Your task to perform on an android device: change the upload size in google photos Image 0: 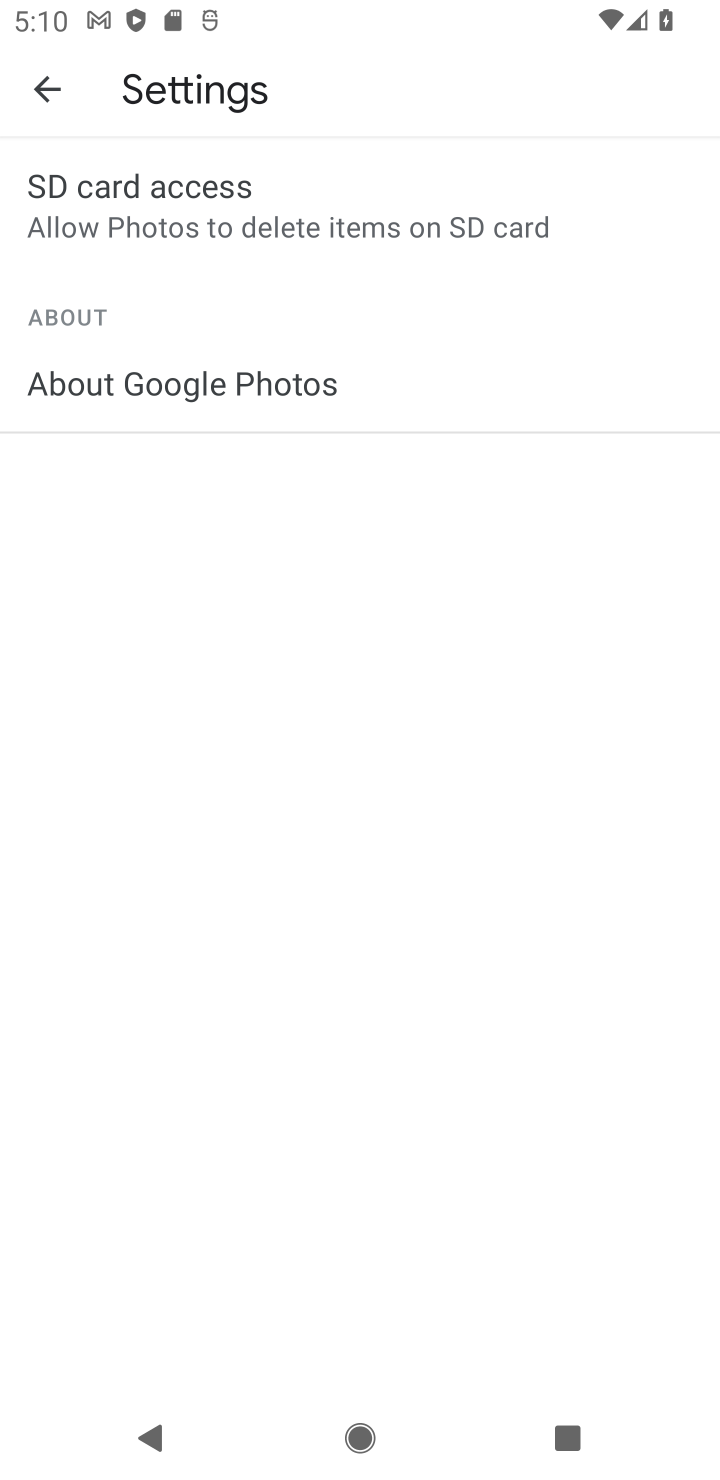
Step 0: press home button
Your task to perform on an android device: change the upload size in google photos Image 1: 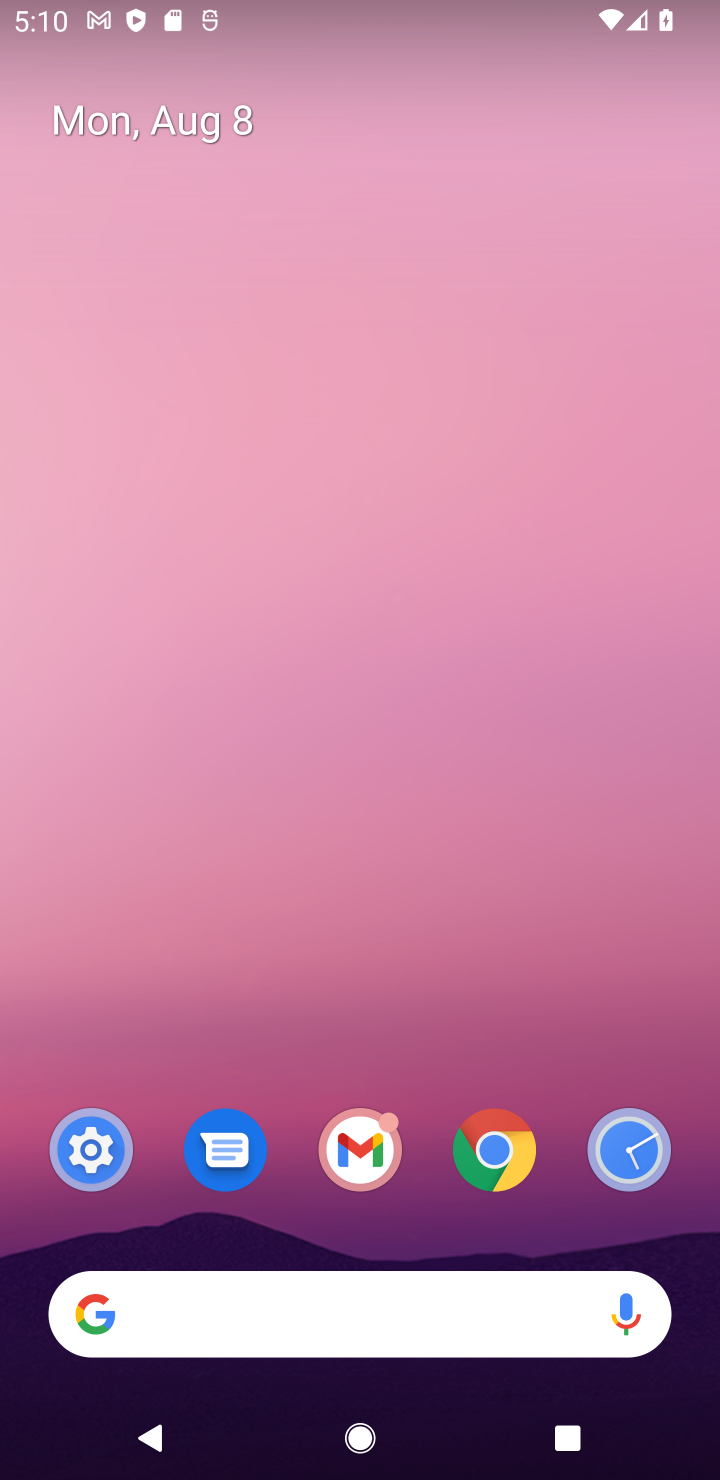
Step 1: drag from (439, 1243) to (432, 308)
Your task to perform on an android device: change the upload size in google photos Image 2: 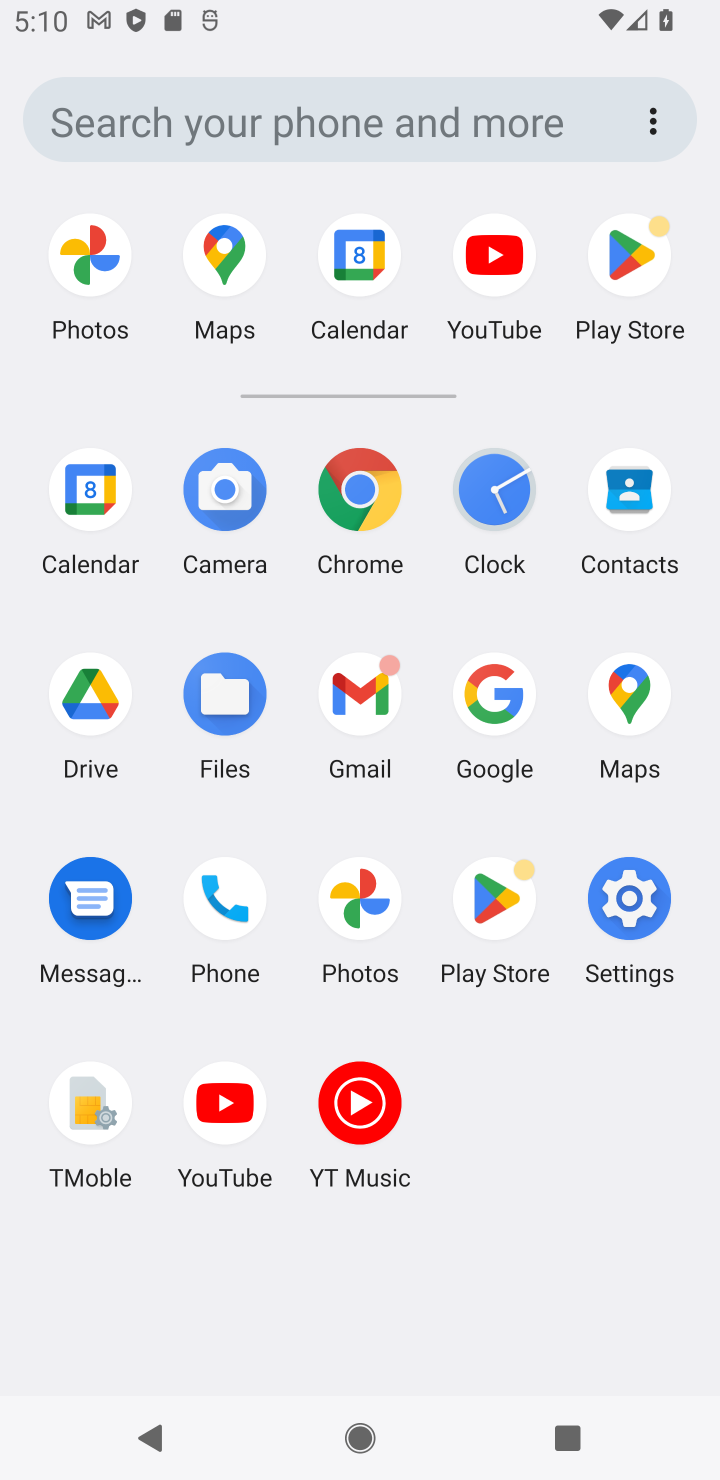
Step 2: click (88, 294)
Your task to perform on an android device: change the upload size in google photos Image 3: 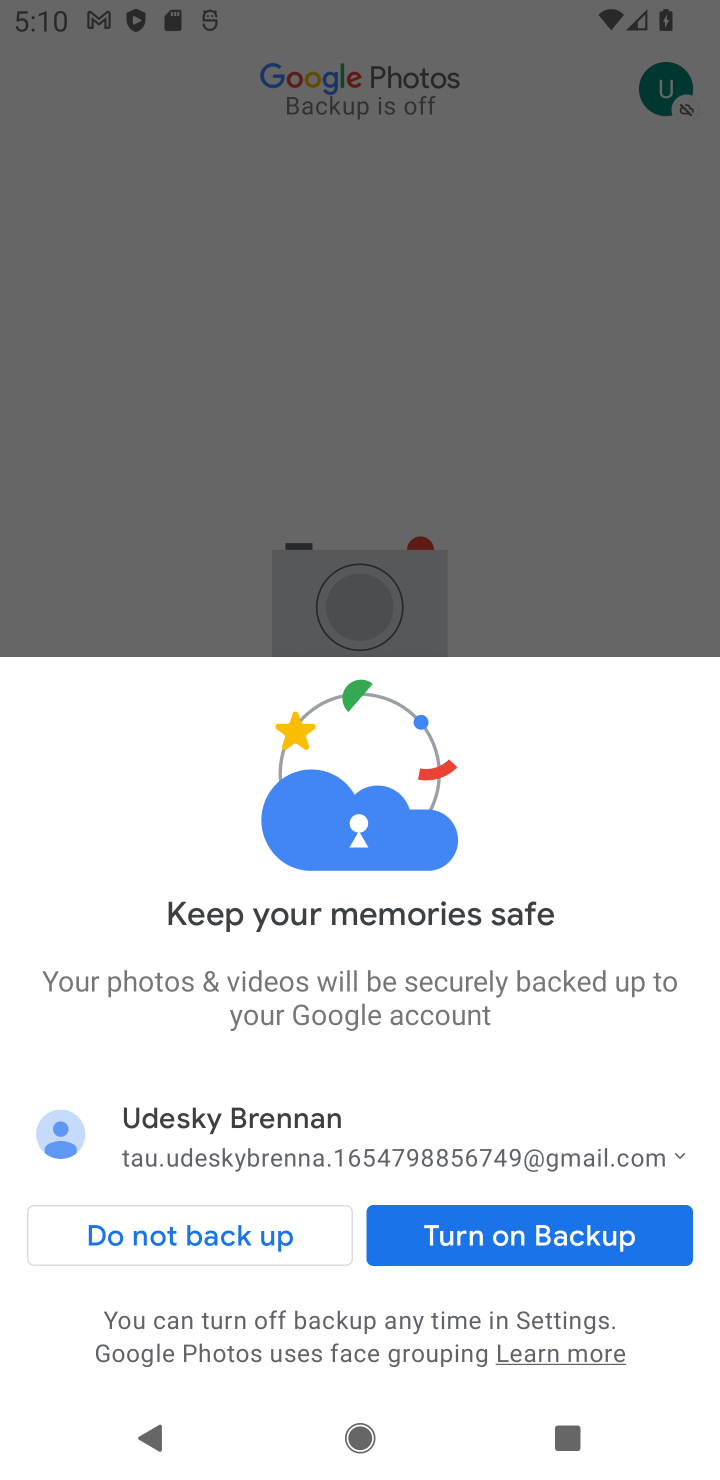
Step 3: click (221, 1236)
Your task to perform on an android device: change the upload size in google photos Image 4: 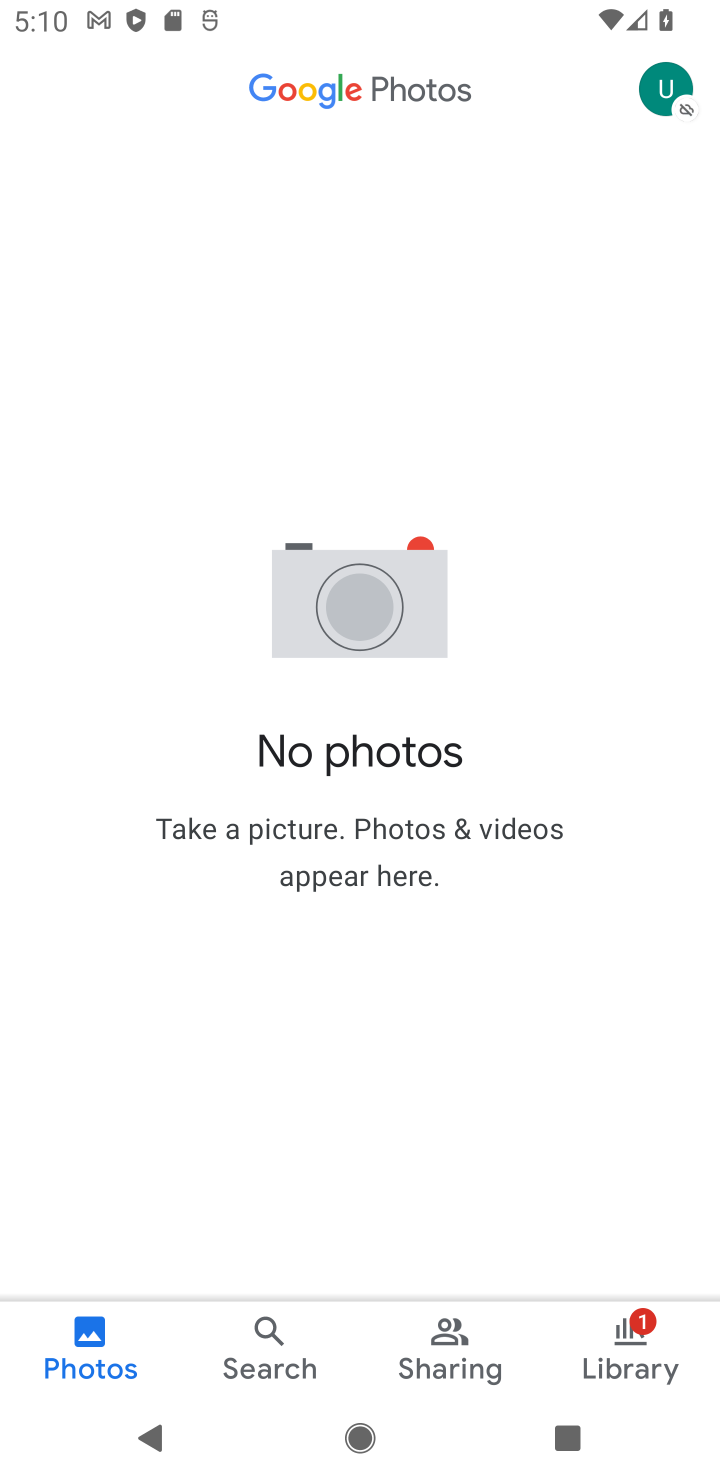
Step 4: task complete